Your task to perform on an android device: delete the emails in spam in the gmail app Image 0: 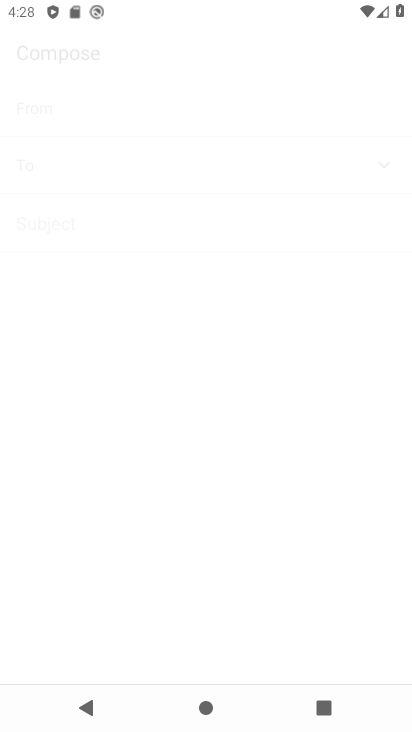
Step 0: drag from (212, 491) to (343, 57)
Your task to perform on an android device: delete the emails in spam in the gmail app Image 1: 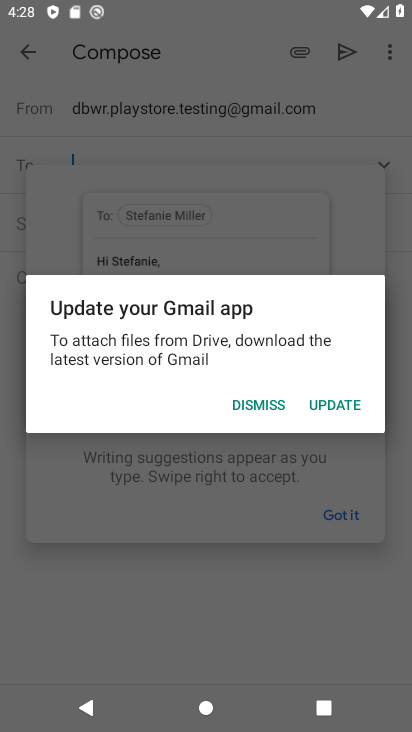
Step 1: press back button
Your task to perform on an android device: delete the emails in spam in the gmail app Image 2: 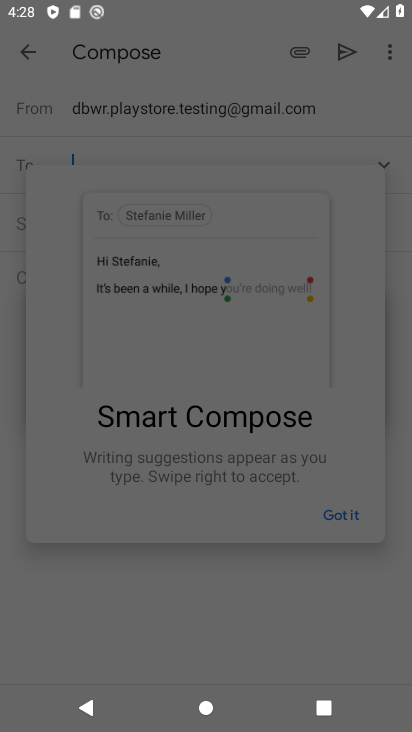
Step 2: press back button
Your task to perform on an android device: delete the emails in spam in the gmail app Image 3: 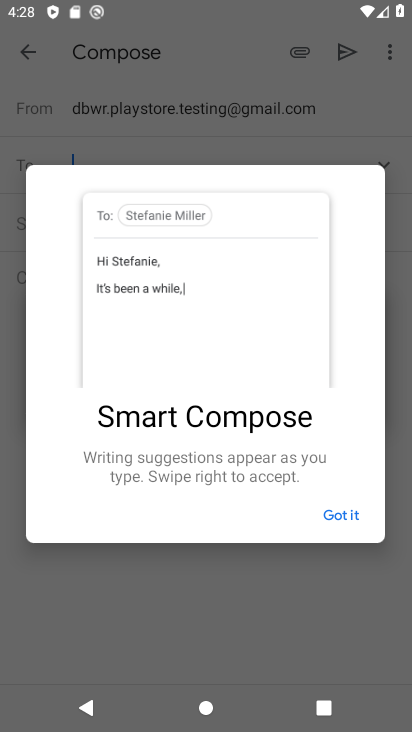
Step 3: press home button
Your task to perform on an android device: delete the emails in spam in the gmail app Image 4: 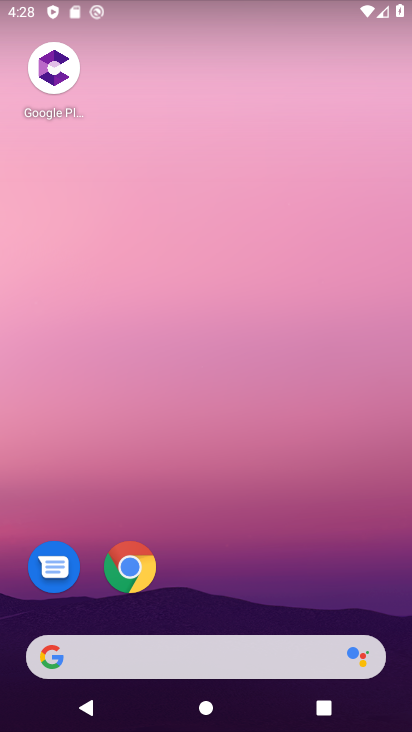
Step 4: drag from (252, 488) to (355, 59)
Your task to perform on an android device: delete the emails in spam in the gmail app Image 5: 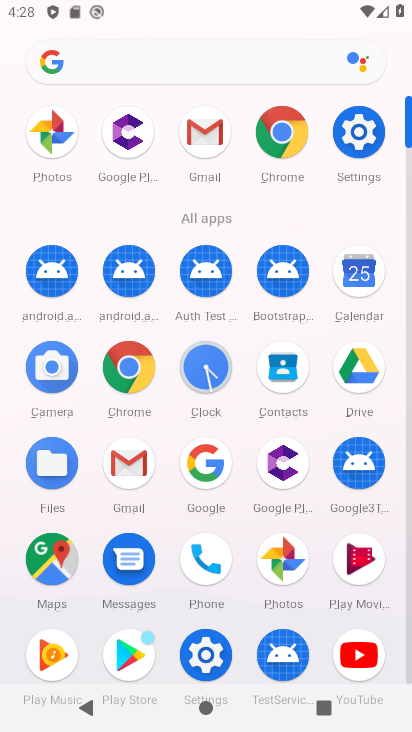
Step 5: click (198, 137)
Your task to perform on an android device: delete the emails in spam in the gmail app Image 6: 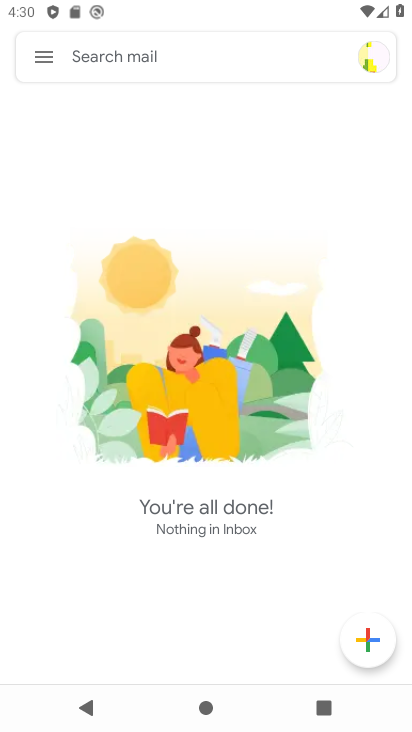
Step 6: click (36, 57)
Your task to perform on an android device: delete the emails in spam in the gmail app Image 7: 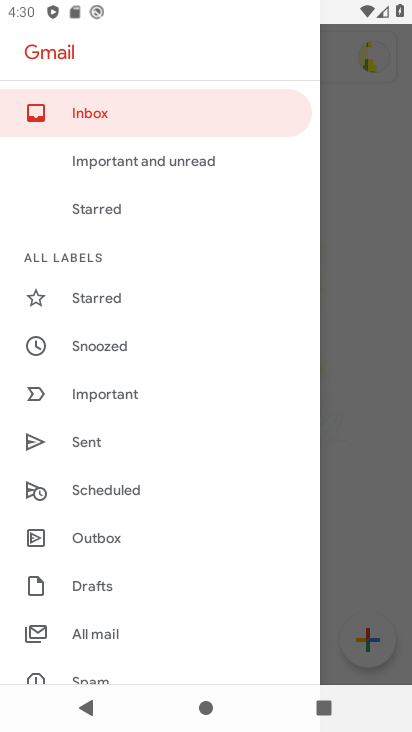
Step 7: drag from (137, 533) to (272, 121)
Your task to perform on an android device: delete the emails in spam in the gmail app Image 8: 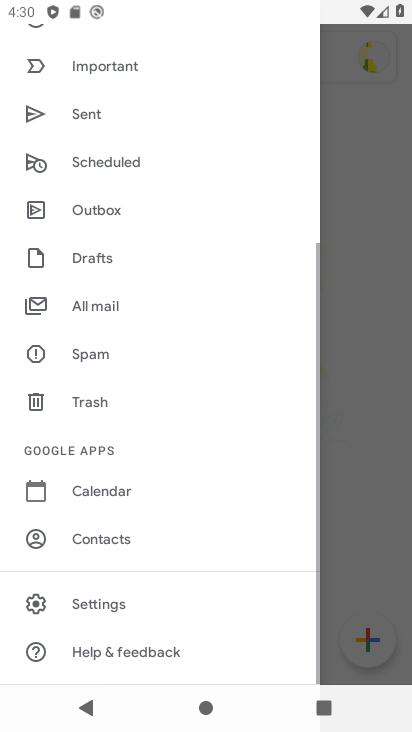
Step 8: click (97, 349)
Your task to perform on an android device: delete the emails in spam in the gmail app Image 9: 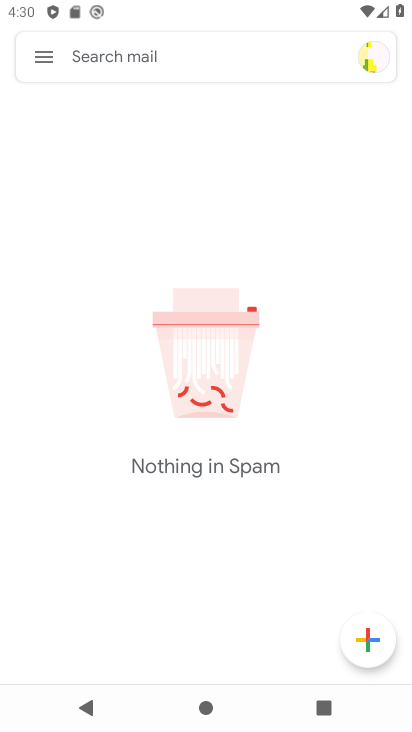
Step 9: task complete